Your task to perform on an android device: open chrome and create a bookmark for the current page Image 0: 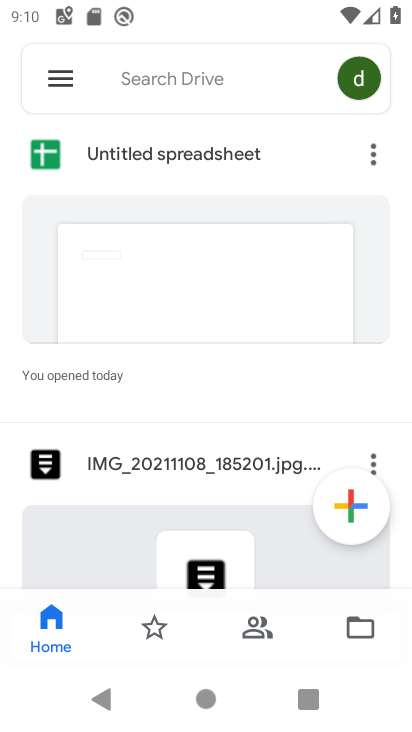
Step 0: press back button
Your task to perform on an android device: open chrome and create a bookmark for the current page Image 1: 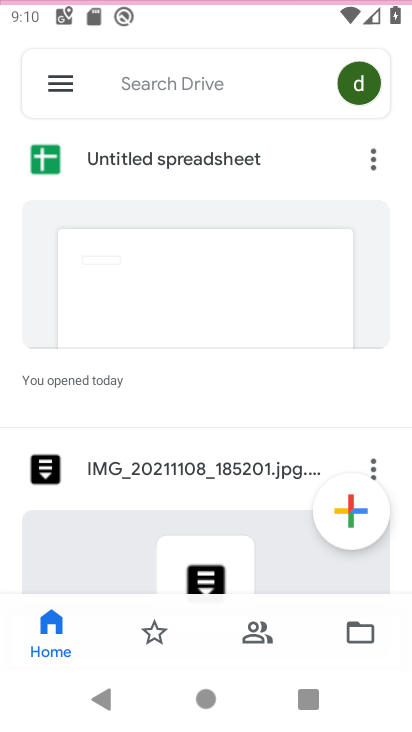
Step 1: press back button
Your task to perform on an android device: open chrome and create a bookmark for the current page Image 2: 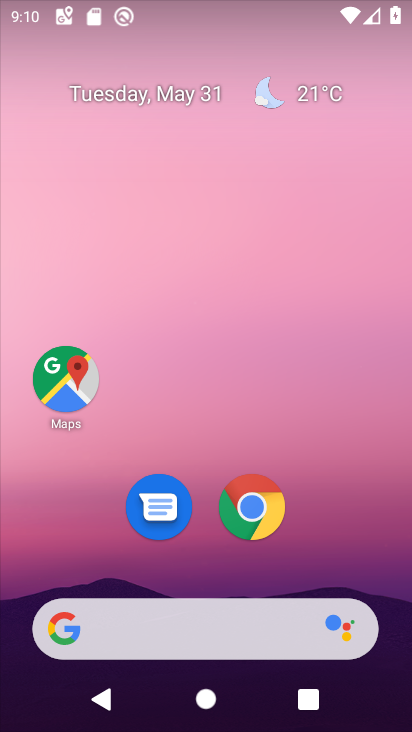
Step 2: drag from (239, 412) to (202, 10)
Your task to perform on an android device: open chrome and create a bookmark for the current page Image 3: 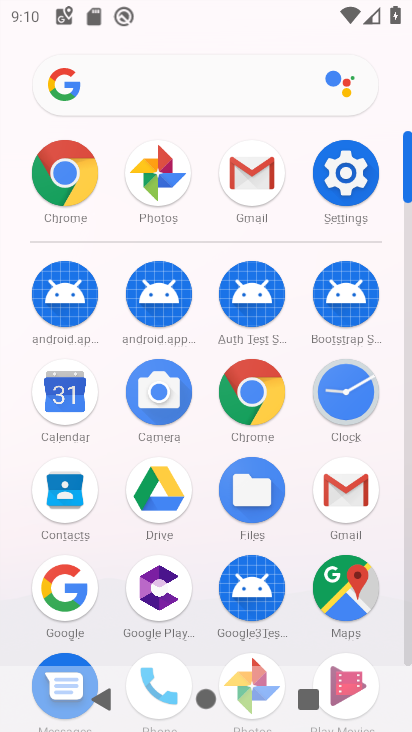
Step 3: click (252, 393)
Your task to perform on an android device: open chrome and create a bookmark for the current page Image 4: 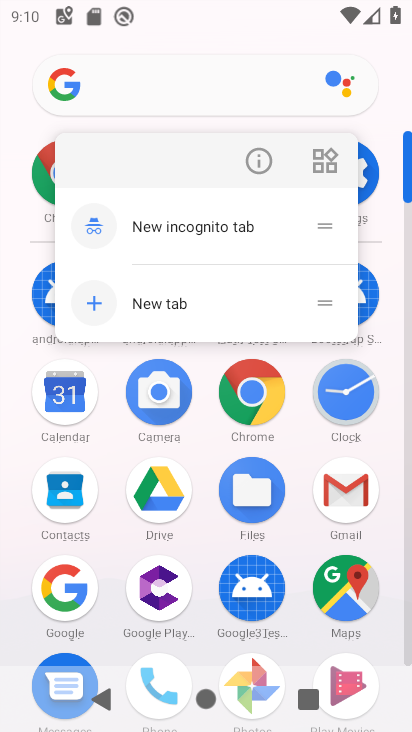
Step 4: click (250, 388)
Your task to perform on an android device: open chrome and create a bookmark for the current page Image 5: 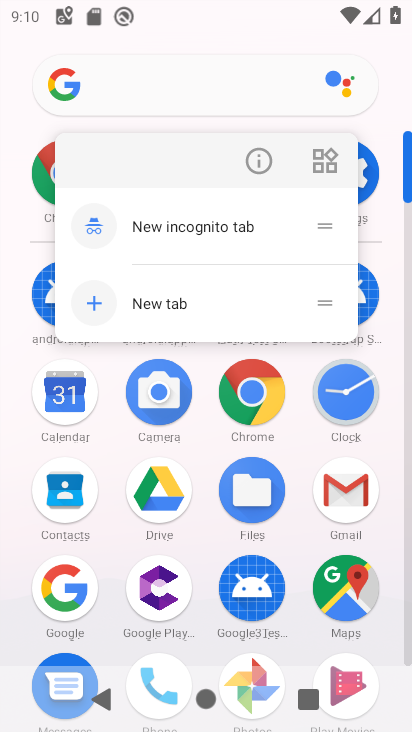
Step 5: click (247, 384)
Your task to perform on an android device: open chrome and create a bookmark for the current page Image 6: 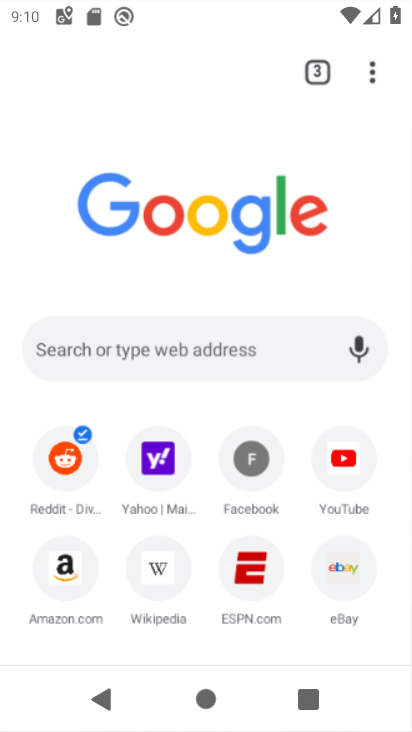
Step 6: click (246, 383)
Your task to perform on an android device: open chrome and create a bookmark for the current page Image 7: 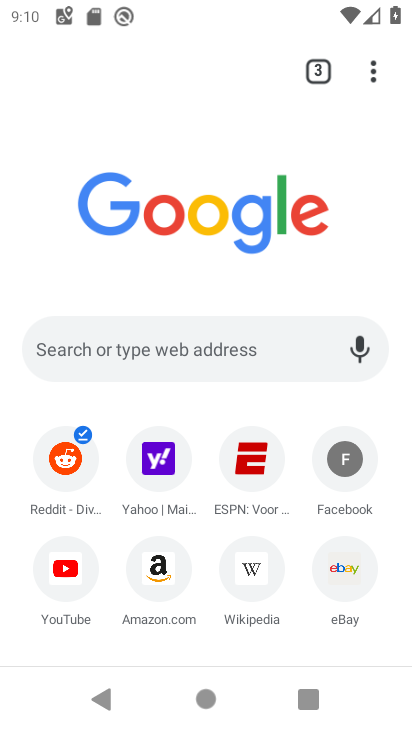
Step 7: drag from (369, 74) to (105, 149)
Your task to perform on an android device: open chrome and create a bookmark for the current page Image 8: 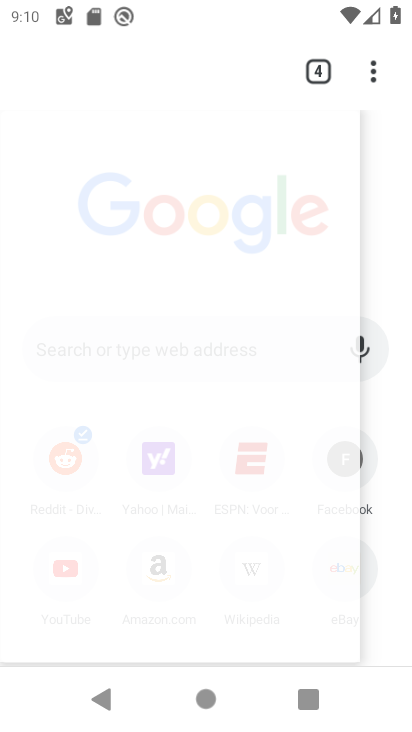
Step 8: click (109, 135)
Your task to perform on an android device: open chrome and create a bookmark for the current page Image 9: 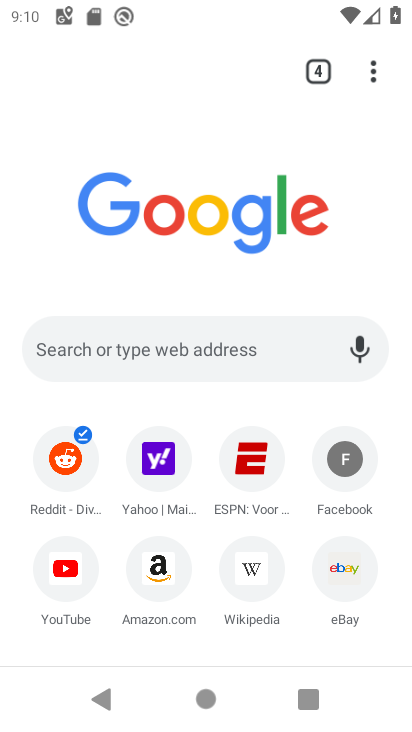
Step 9: click (109, 134)
Your task to perform on an android device: open chrome and create a bookmark for the current page Image 10: 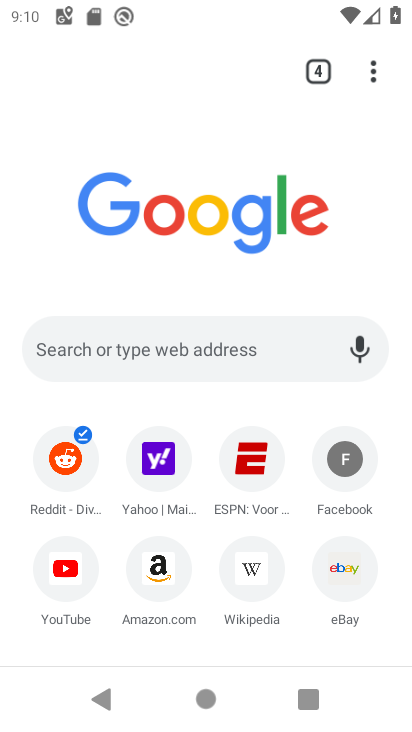
Step 10: click (70, 336)
Your task to perform on an android device: open chrome and create a bookmark for the current page Image 11: 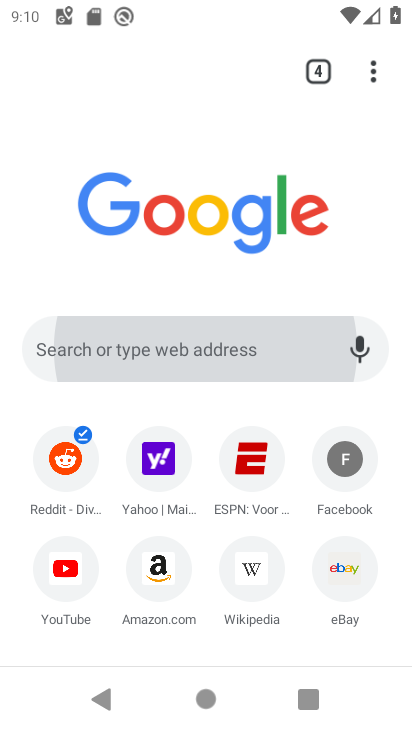
Step 11: click (68, 337)
Your task to perform on an android device: open chrome and create a bookmark for the current page Image 12: 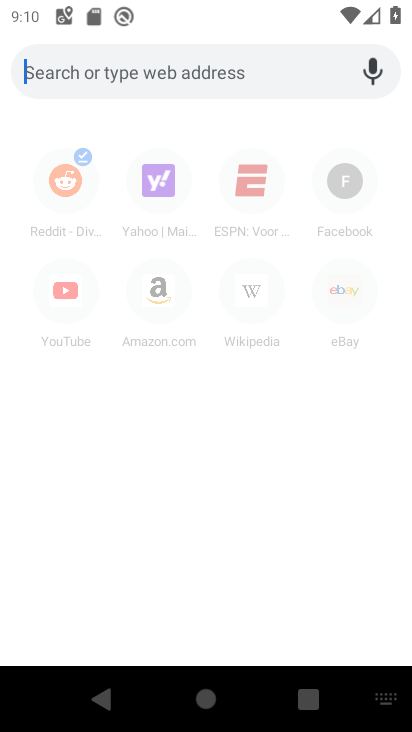
Step 12: type "www.fasi.com"
Your task to perform on an android device: open chrome and create a bookmark for the current page Image 13: 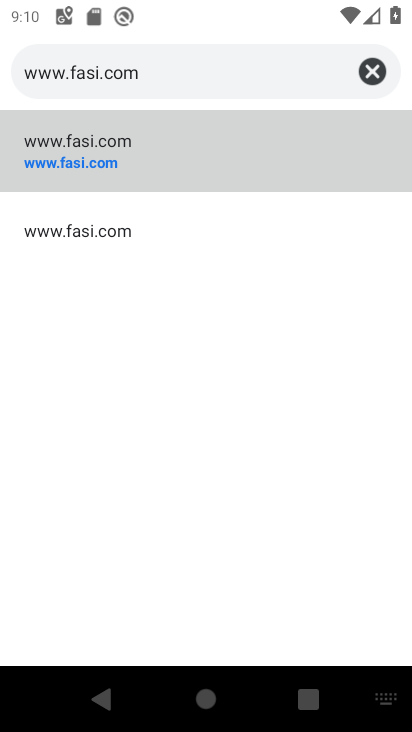
Step 13: click (71, 162)
Your task to perform on an android device: open chrome and create a bookmark for the current page Image 14: 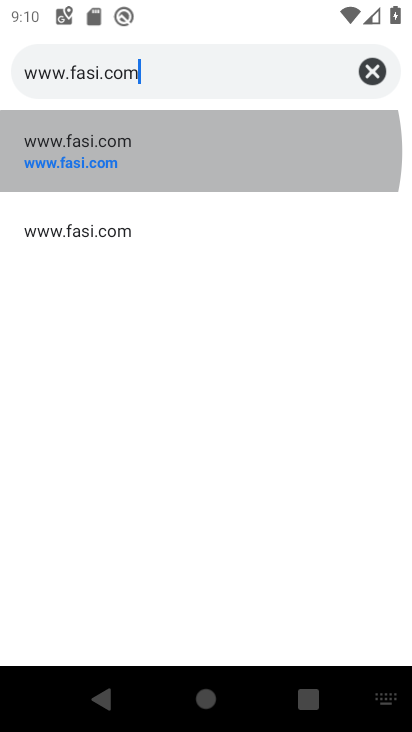
Step 14: click (71, 162)
Your task to perform on an android device: open chrome and create a bookmark for the current page Image 15: 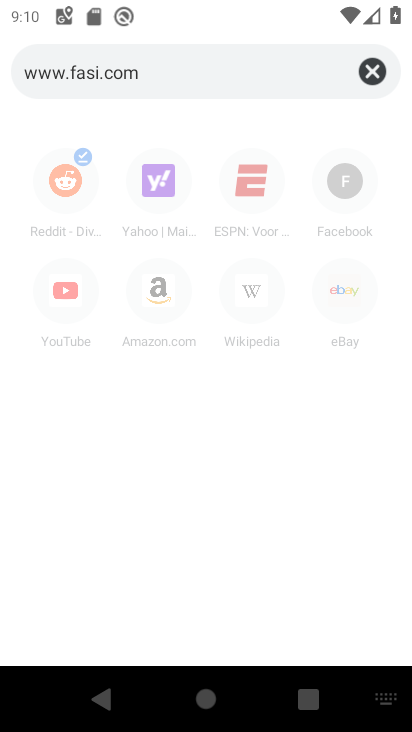
Step 15: click (73, 165)
Your task to perform on an android device: open chrome and create a bookmark for the current page Image 16: 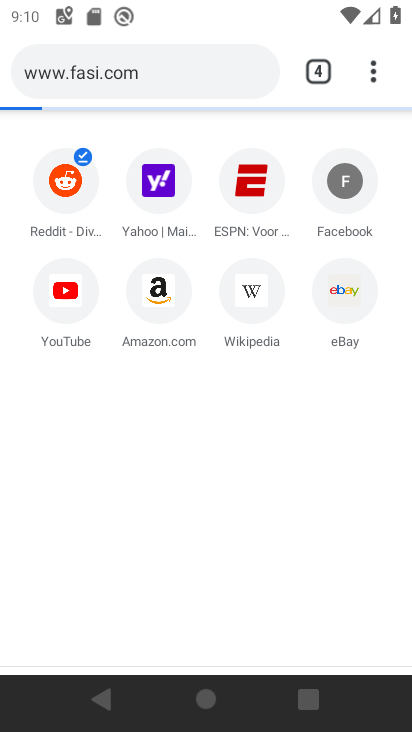
Step 16: click (73, 165)
Your task to perform on an android device: open chrome and create a bookmark for the current page Image 17: 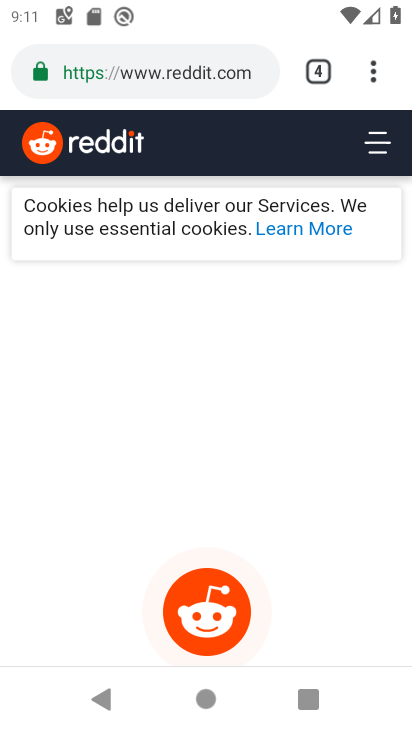
Step 17: drag from (371, 76) to (298, 136)
Your task to perform on an android device: open chrome and create a bookmark for the current page Image 18: 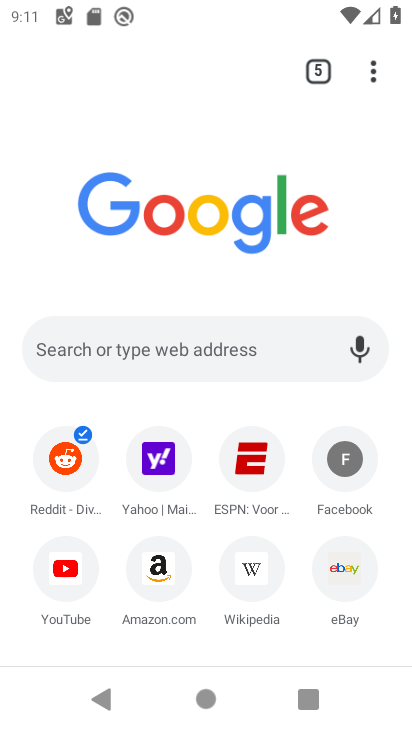
Step 18: click (69, 340)
Your task to perform on an android device: open chrome and create a bookmark for the current page Image 19: 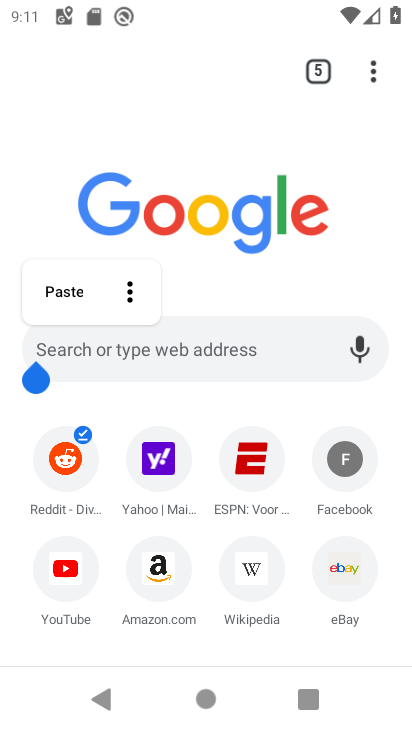
Step 19: click (47, 370)
Your task to perform on an android device: open chrome and create a bookmark for the current page Image 20: 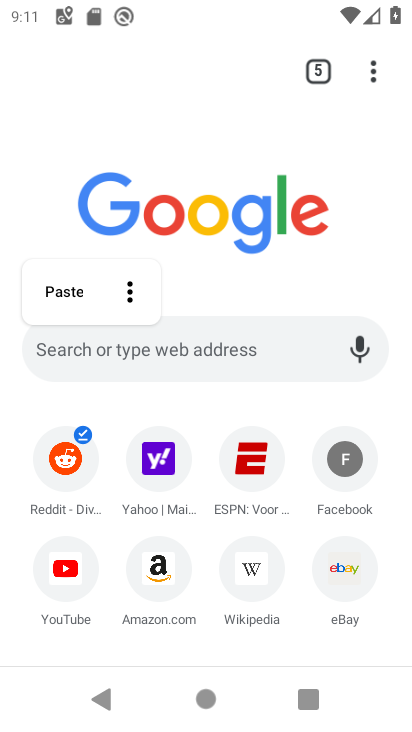
Step 20: click (63, 351)
Your task to perform on an android device: open chrome and create a bookmark for the current page Image 21: 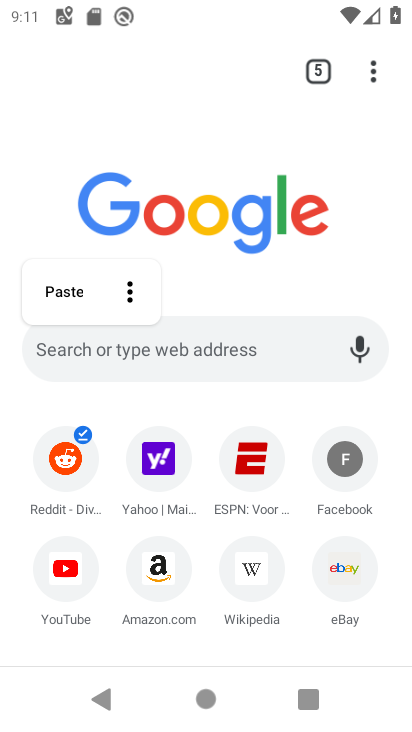
Step 21: click (64, 351)
Your task to perform on an android device: open chrome and create a bookmark for the current page Image 22: 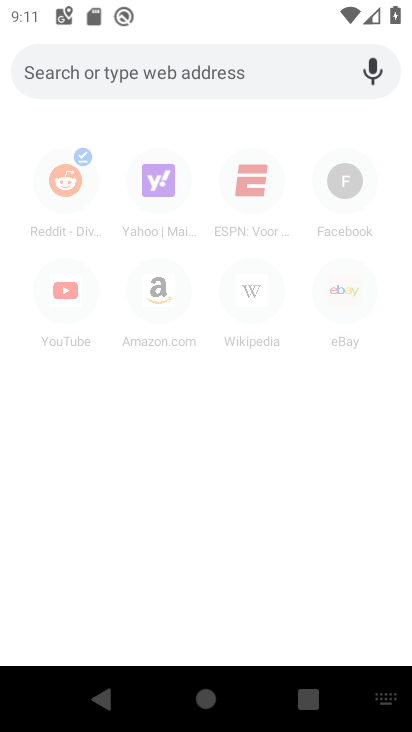
Step 22: type "www.fansi.com"
Your task to perform on an android device: open chrome and create a bookmark for the current page Image 23: 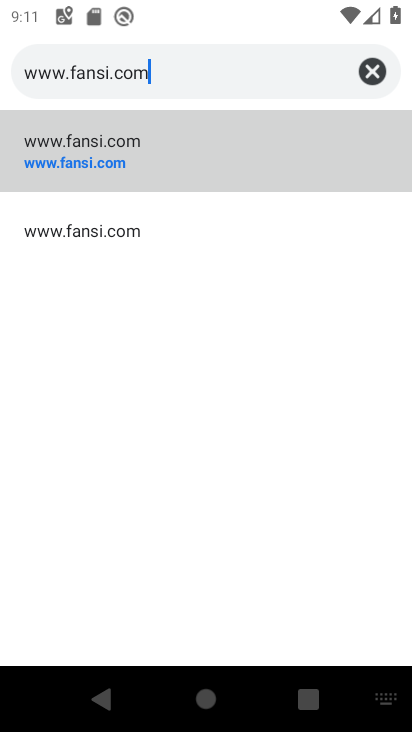
Step 23: click (82, 154)
Your task to perform on an android device: open chrome and create a bookmark for the current page Image 24: 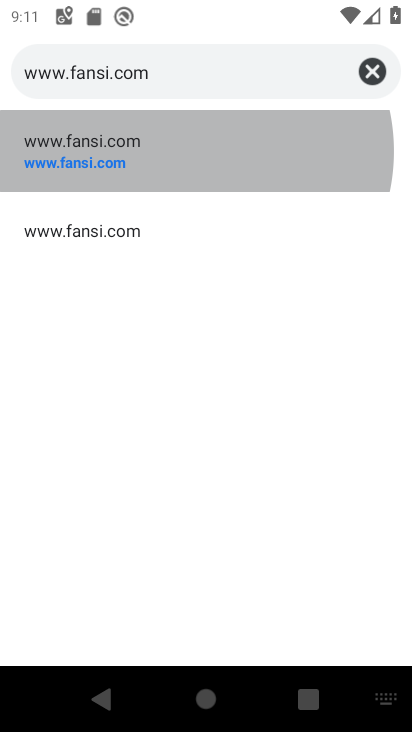
Step 24: click (82, 154)
Your task to perform on an android device: open chrome and create a bookmark for the current page Image 25: 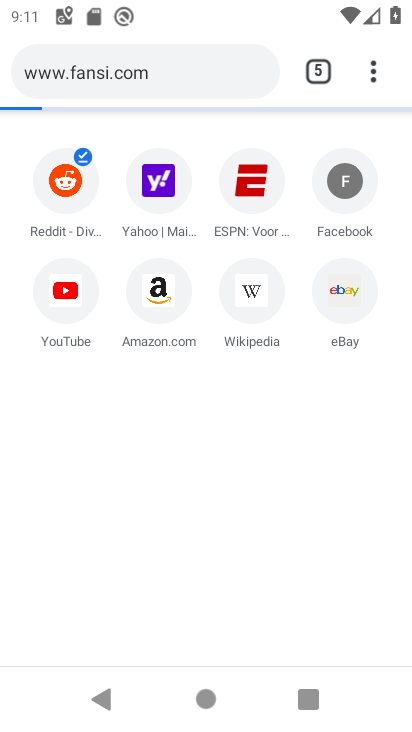
Step 25: drag from (375, 81) to (155, 72)
Your task to perform on an android device: open chrome and create a bookmark for the current page Image 26: 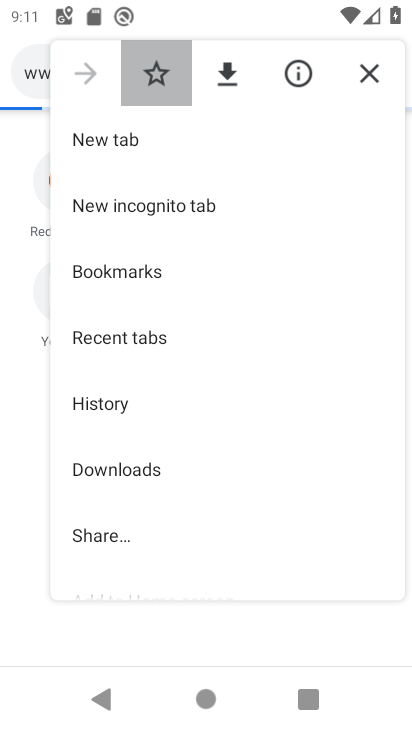
Step 26: click (155, 72)
Your task to perform on an android device: open chrome and create a bookmark for the current page Image 27: 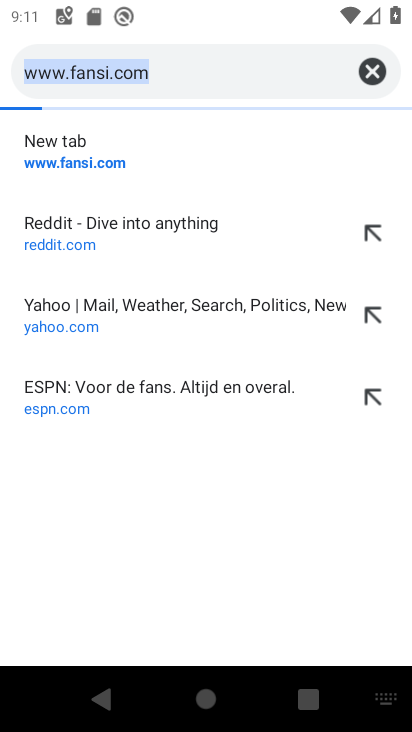
Step 27: task complete